Your task to perform on an android device: Open the calendar and show me this week's events? Image 0: 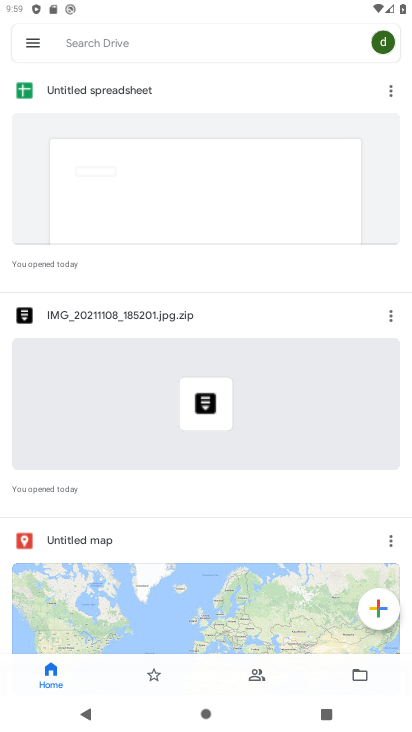
Step 0: press home button
Your task to perform on an android device: Open the calendar and show me this week's events? Image 1: 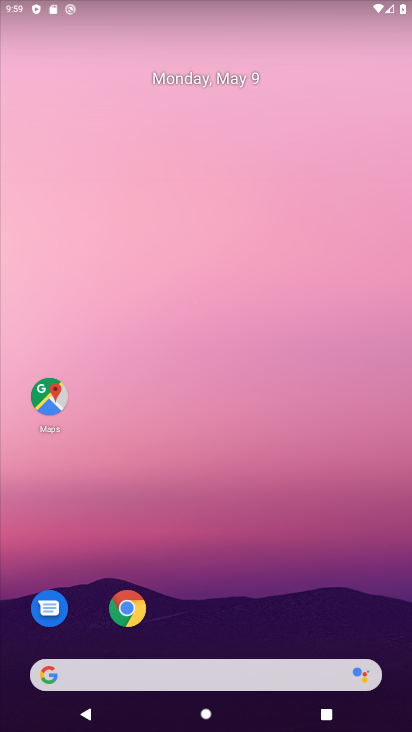
Step 1: drag from (206, 453) to (276, 52)
Your task to perform on an android device: Open the calendar and show me this week's events? Image 2: 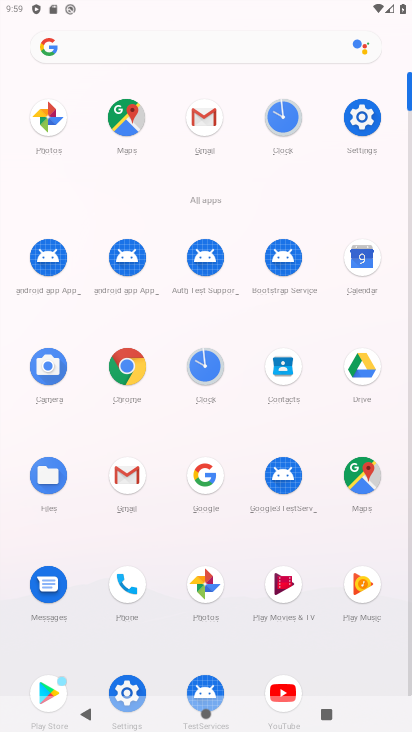
Step 2: click (355, 255)
Your task to perform on an android device: Open the calendar and show me this week's events? Image 3: 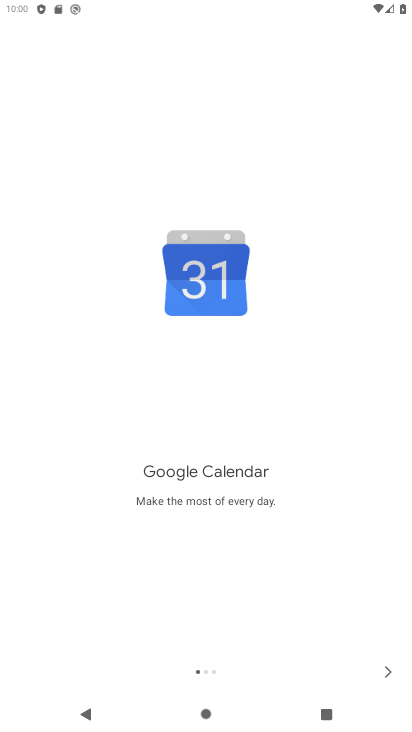
Step 3: click (386, 668)
Your task to perform on an android device: Open the calendar and show me this week's events? Image 4: 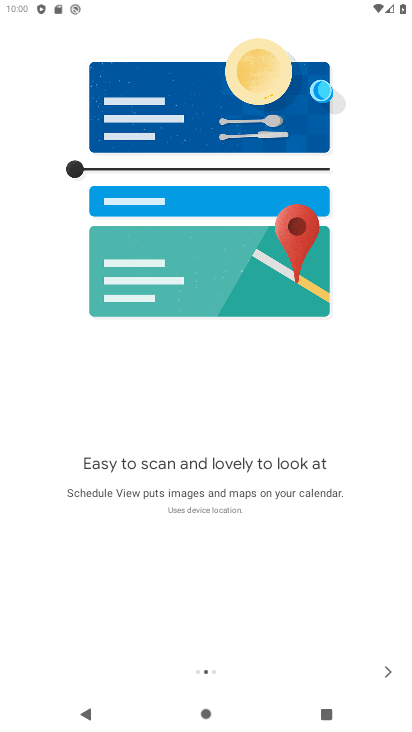
Step 4: click (386, 668)
Your task to perform on an android device: Open the calendar and show me this week's events? Image 5: 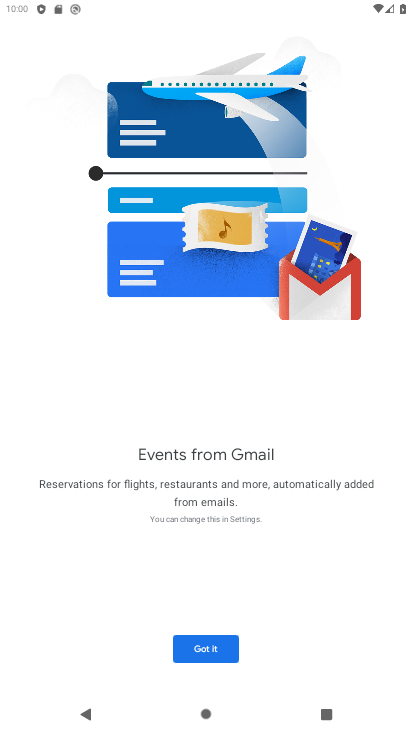
Step 5: click (203, 650)
Your task to perform on an android device: Open the calendar and show me this week's events? Image 6: 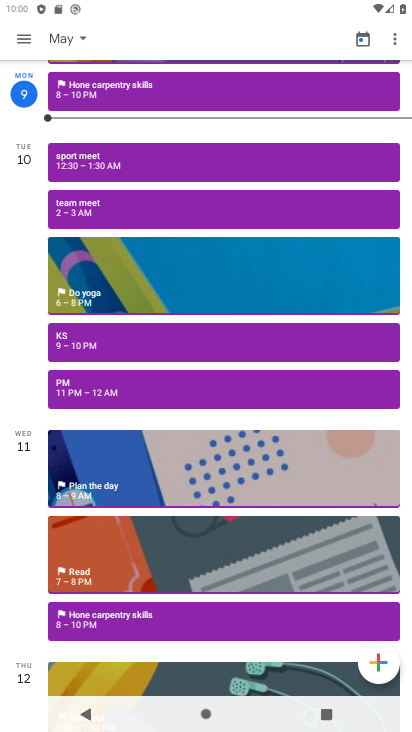
Step 6: click (85, 35)
Your task to perform on an android device: Open the calendar and show me this week's events? Image 7: 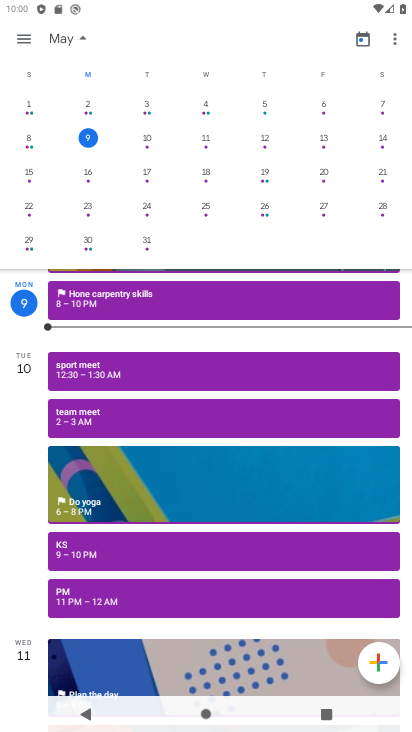
Step 7: click (20, 45)
Your task to perform on an android device: Open the calendar and show me this week's events? Image 8: 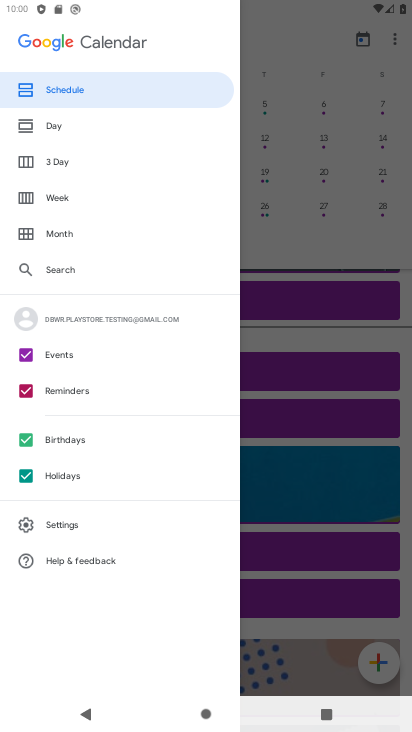
Step 8: click (25, 387)
Your task to perform on an android device: Open the calendar and show me this week's events? Image 9: 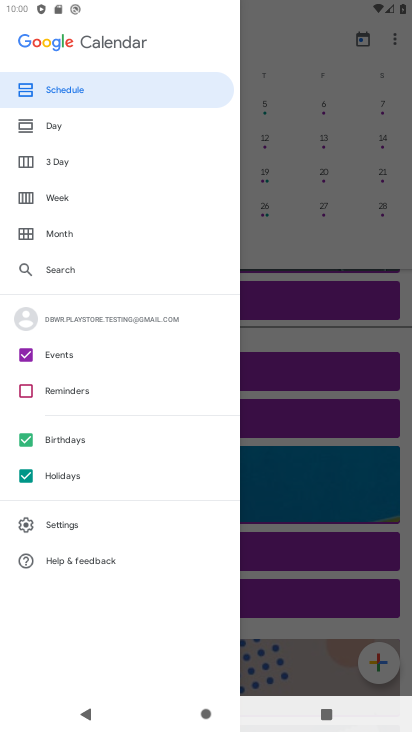
Step 9: click (18, 443)
Your task to perform on an android device: Open the calendar and show me this week's events? Image 10: 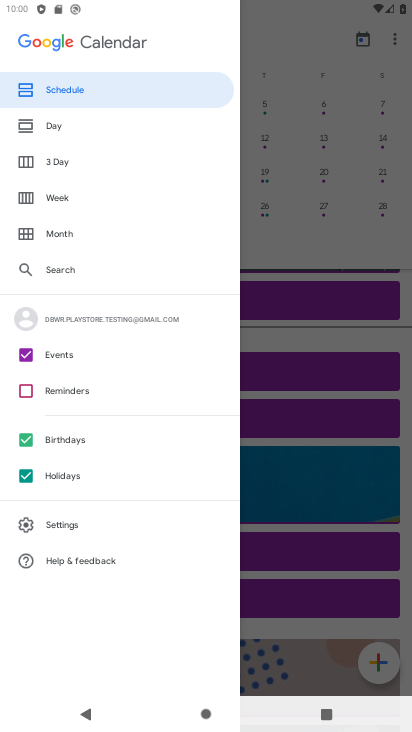
Step 10: click (24, 479)
Your task to perform on an android device: Open the calendar and show me this week's events? Image 11: 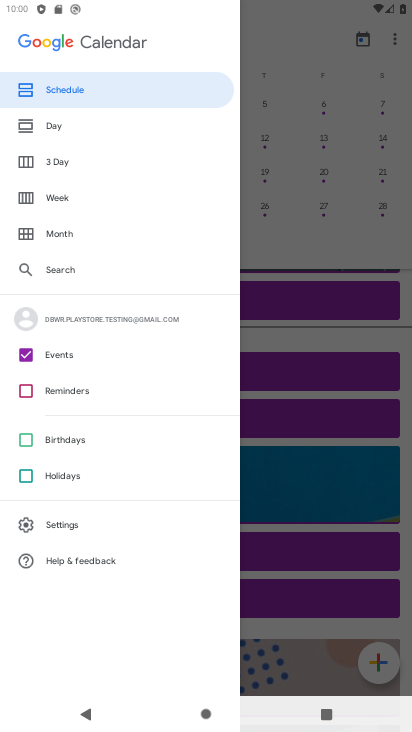
Step 11: click (61, 192)
Your task to perform on an android device: Open the calendar and show me this week's events? Image 12: 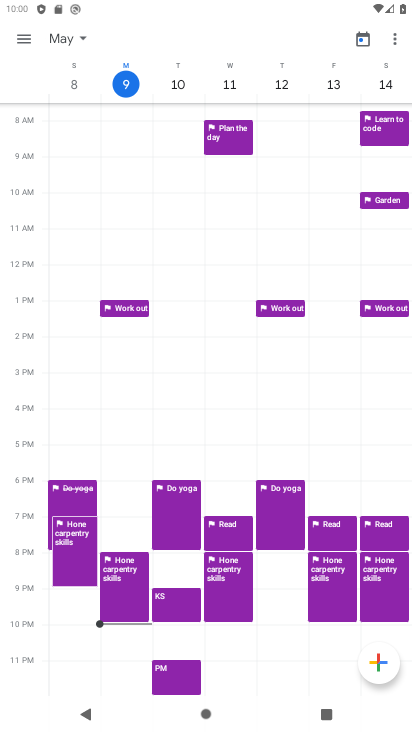
Step 12: task complete